Your task to perform on an android device: turn on showing notifications on the lock screen Image 0: 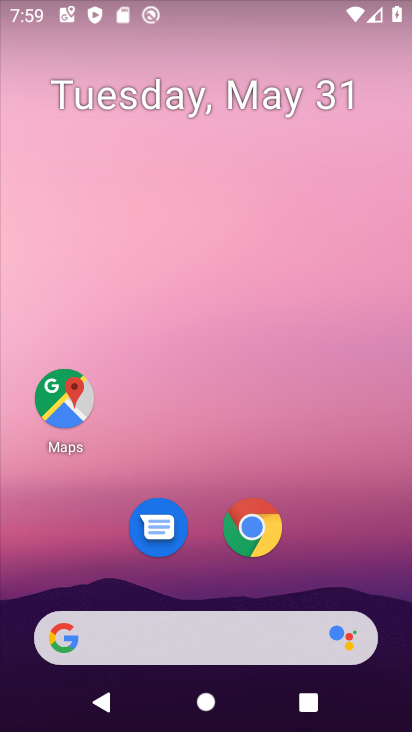
Step 0: drag from (309, 441) to (224, 98)
Your task to perform on an android device: turn on showing notifications on the lock screen Image 1: 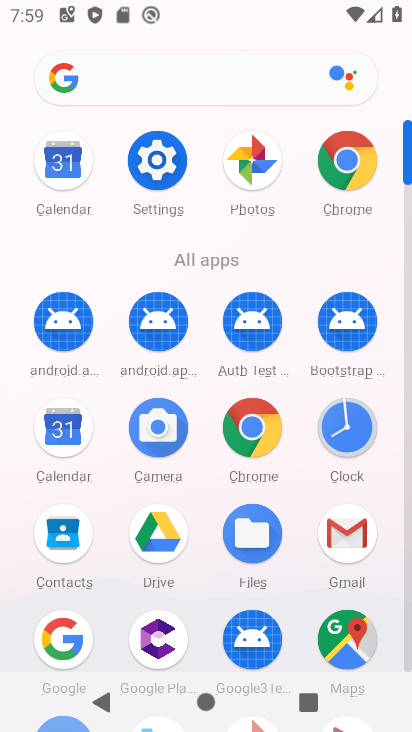
Step 1: click (159, 160)
Your task to perform on an android device: turn on showing notifications on the lock screen Image 2: 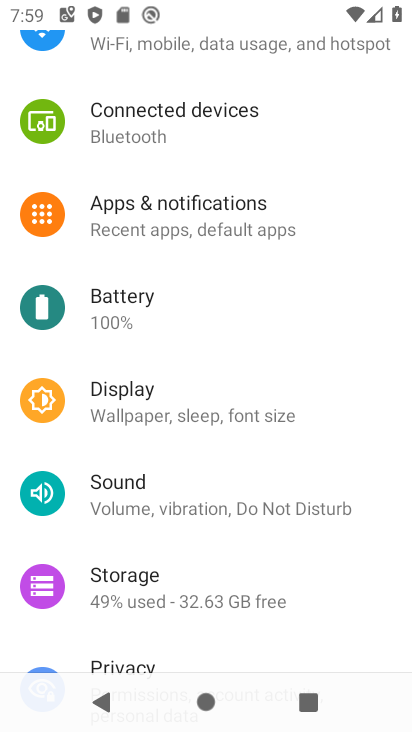
Step 2: click (190, 199)
Your task to perform on an android device: turn on showing notifications on the lock screen Image 3: 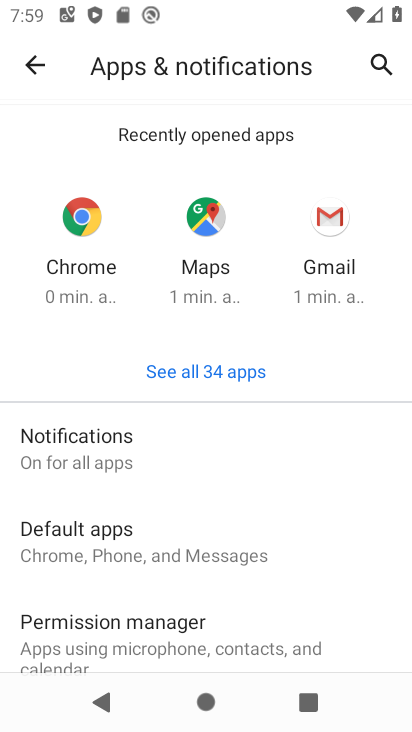
Step 3: click (66, 433)
Your task to perform on an android device: turn on showing notifications on the lock screen Image 4: 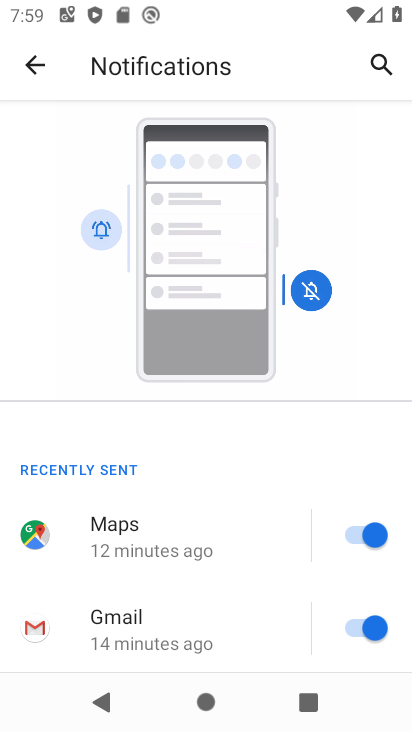
Step 4: drag from (206, 529) to (166, 233)
Your task to perform on an android device: turn on showing notifications on the lock screen Image 5: 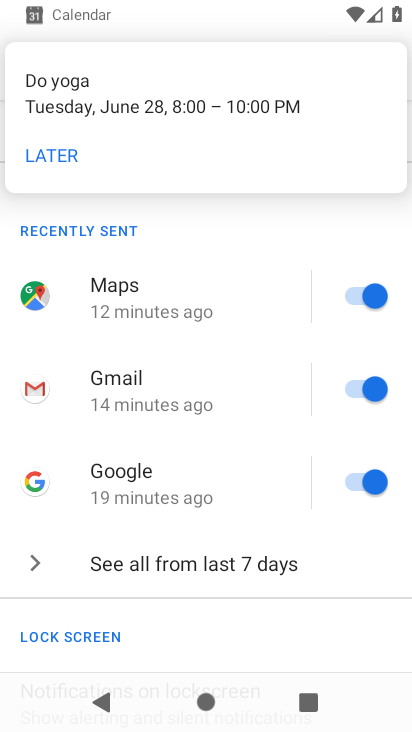
Step 5: drag from (207, 435) to (185, 188)
Your task to perform on an android device: turn on showing notifications on the lock screen Image 6: 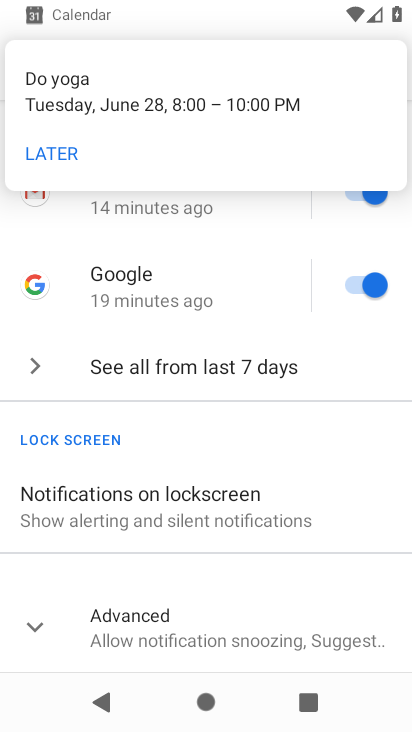
Step 6: click (179, 496)
Your task to perform on an android device: turn on showing notifications on the lock screen Image 7: 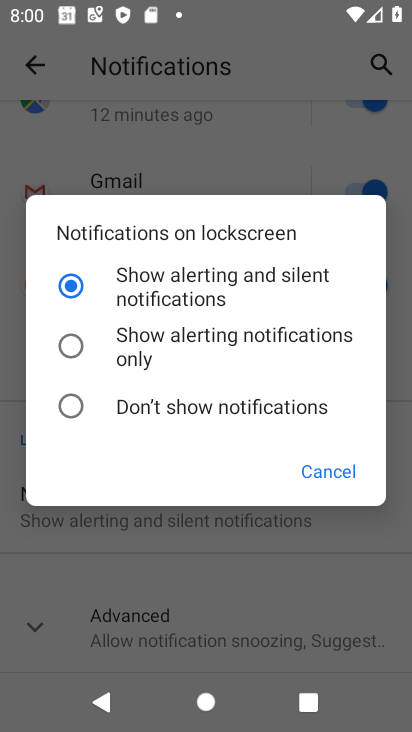
Step 7: task complete